Your task to perform on an android device: Go to Amazon Image 0: 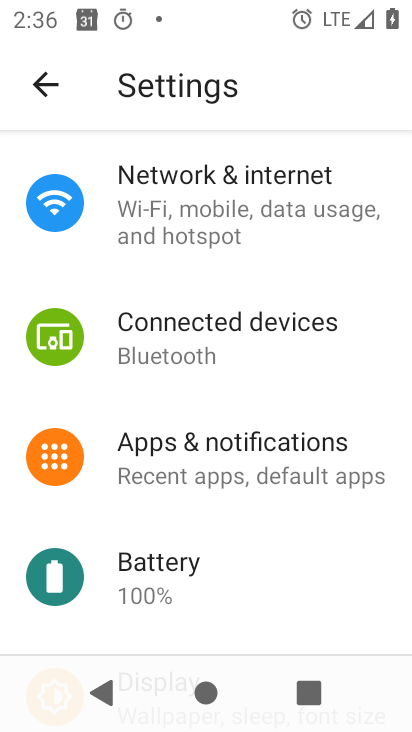
Step 0: press home button
Your task to perform on an android device: Go to Amazon Image 1: 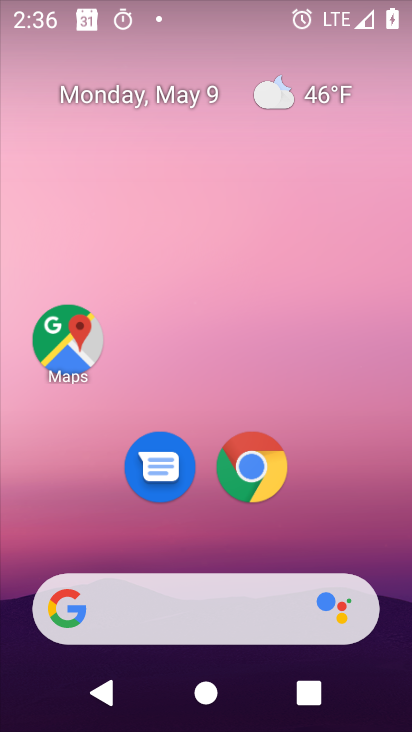
Step 1: drag from (291, 141) to (236, 0)
Your task to perform on an android device: Go to Amazon Image 2: 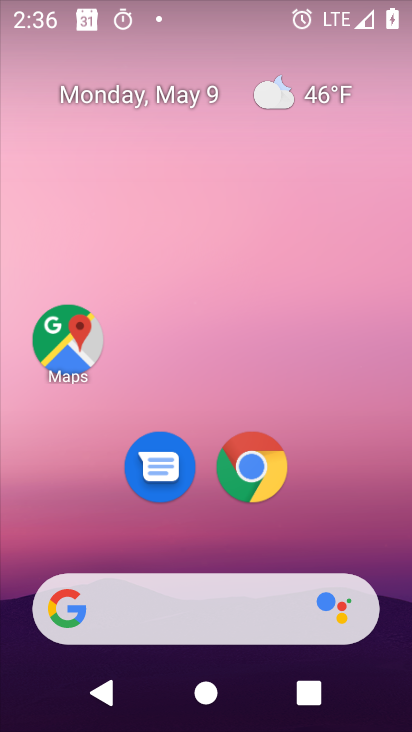
Step 2: drag from (336, 512) to (263, 44)
Your task to perform on an android device: Go to Amazon Image 3: 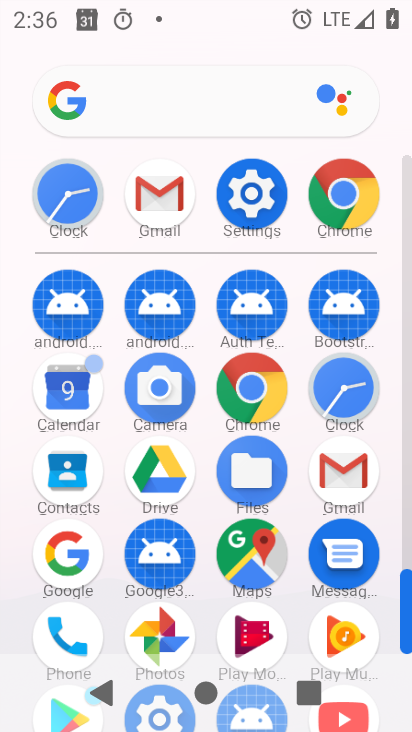
Step 3: click (257, 389)
Your task to perform on an android device: Go to Amazon Image 4: 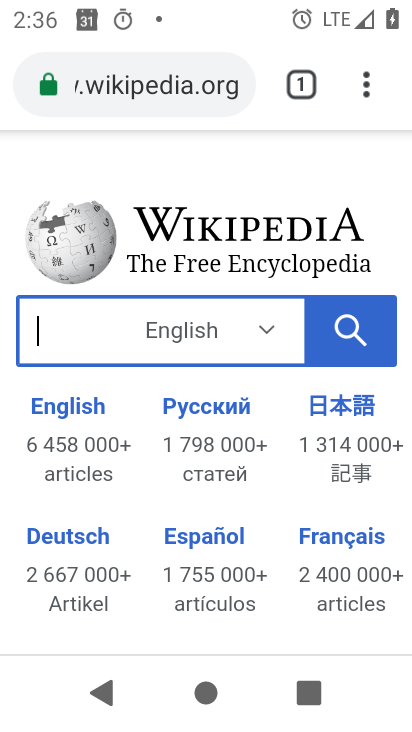
Step 4: click (189, 70)
Your task to perform on an android device: Go to Amazon Image 5: 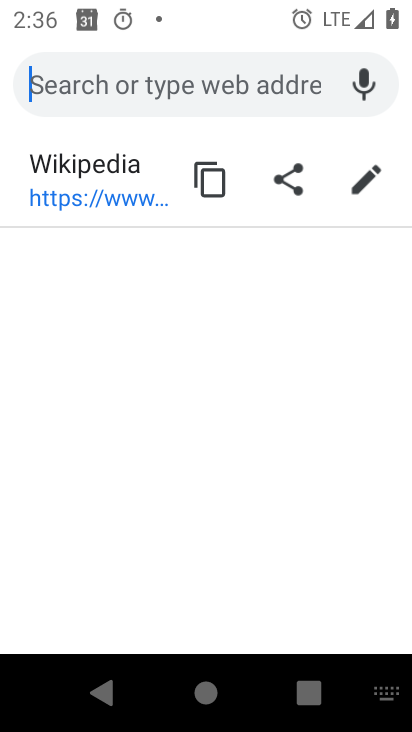
Step 5: type "amazon"
Your task to perform on an android device: Go to Amazon Image 6: 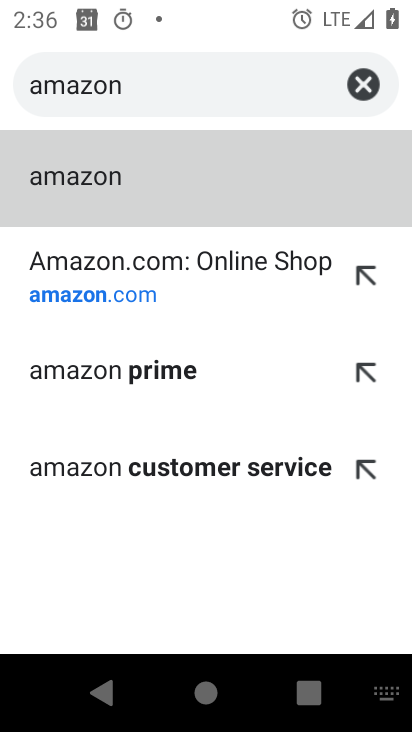
Step 6: click (90, 169)
Your task to perform on an android device: Go to Amazon Image 7: 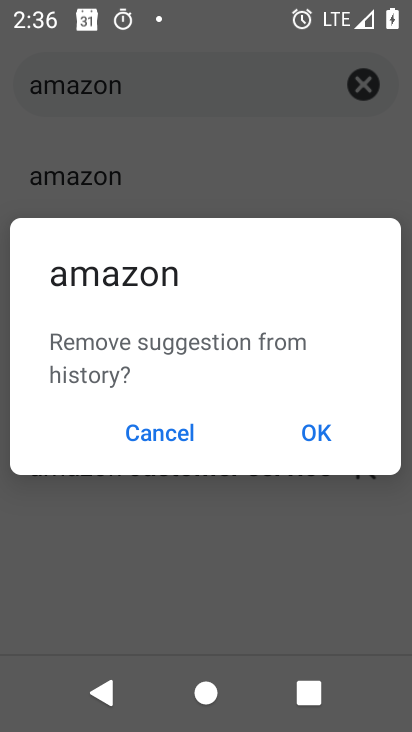
Step 7: click (173, 430)
Your task to perform on an android device: Go to Amazon Image 8: 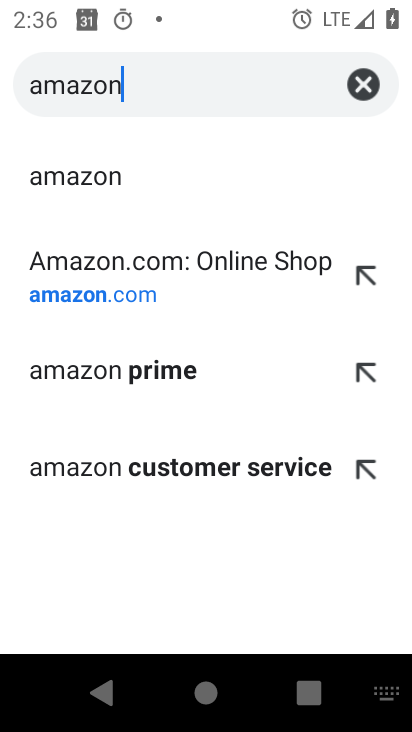
Step 8: click (88, 276)
Your task to perform on an android device: Go to Amazon Image 9: 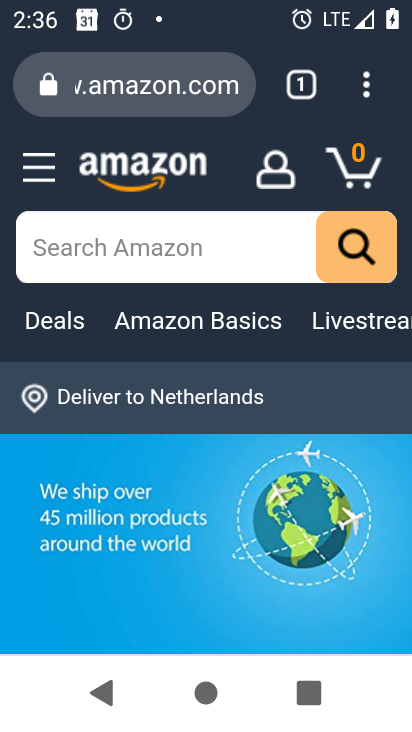
Step 9: task complete